Your task to perform on an android device: Open Yahoo.com Image 0: 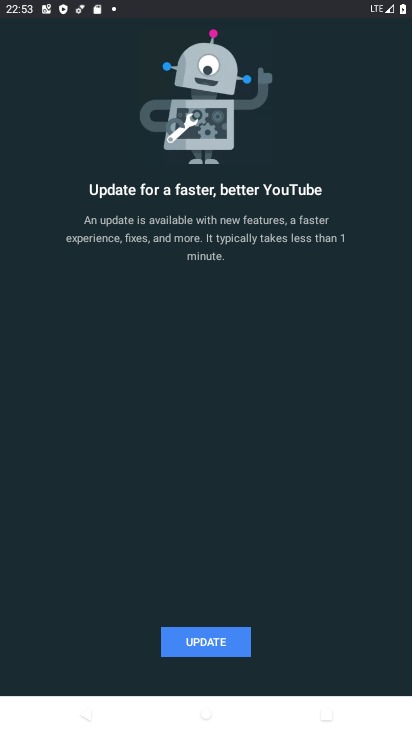
Step 0: press home button
Your task to perform on an android device: Open Yahoo.com Image 1: 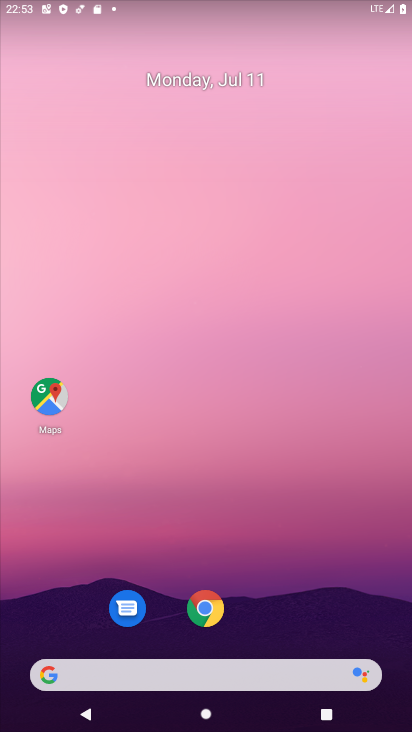
Step 1: click (159, 673)
Your task to perform on an android device: Open Yahoo.com Image 2: 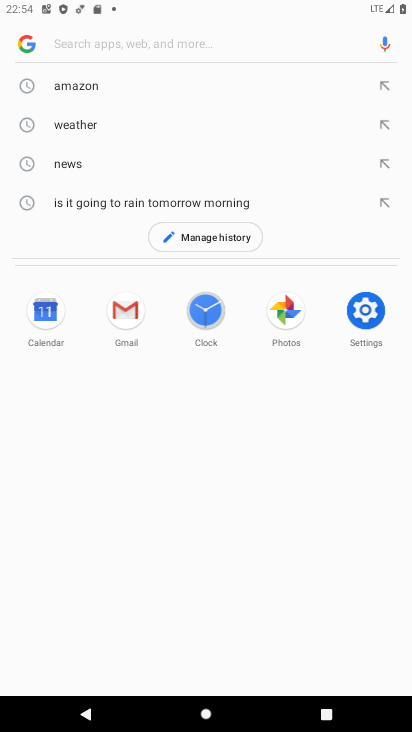
Step 2: type "Yahoo.com"
Your task to perform on an android device: Open Yahoo.com Image 3: 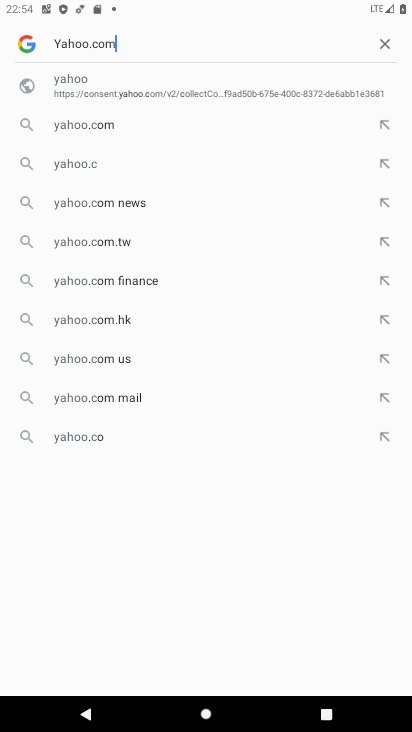
Step 3: type ""
Your task to perform on an android device: Open Yahoo.com Image 4: 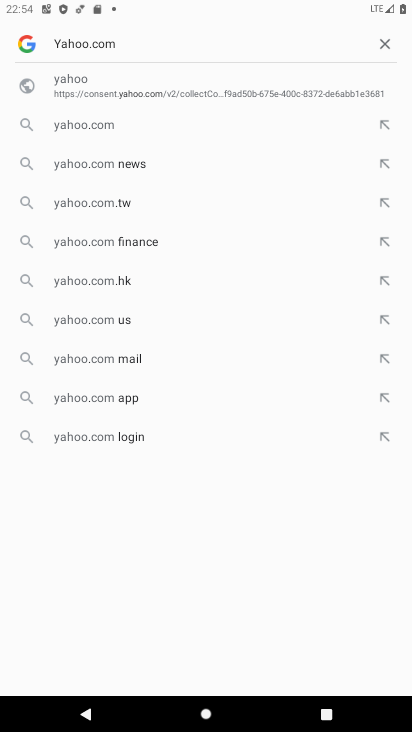
Step 4: click (88, 77)
Your task to perform on an android device: Open Yahoo.com Image 5: 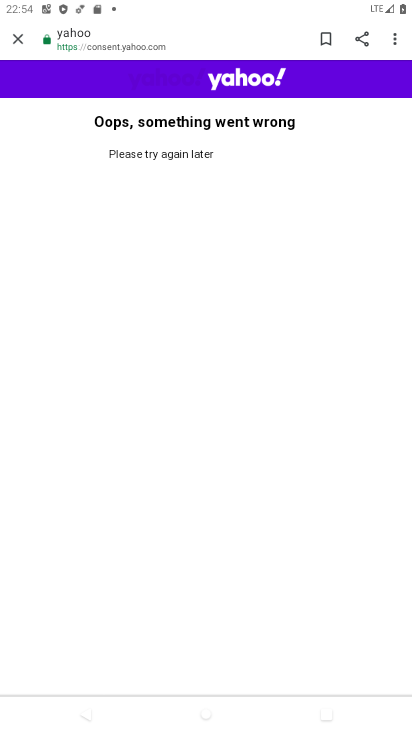
Step 5: task complete